Your task to perform on an android device: turn off sleep mode Image 0: 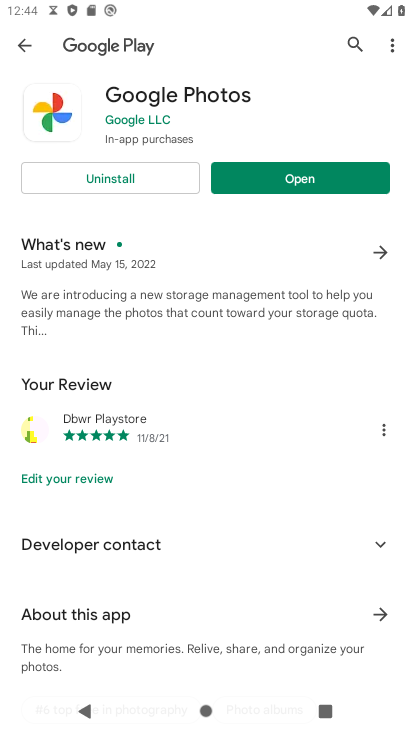
Step 0: press home button
Your task to perform on an android device: turn off sleep mode Image 1: 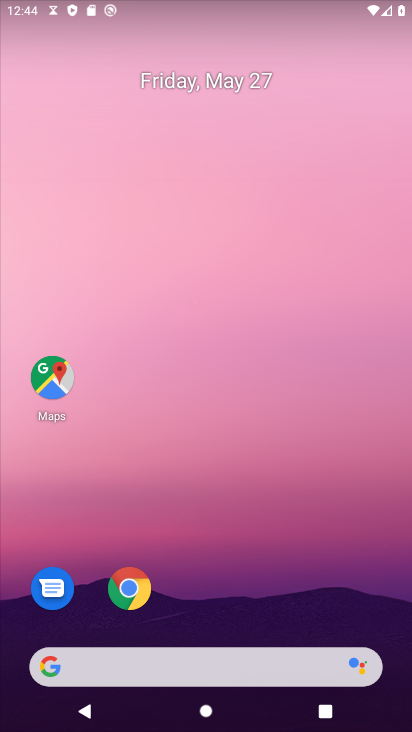
Step 1: drag from (225, 624) to (259, 132)
Your task to perform on an android device: turn off sleep mode Image 2: 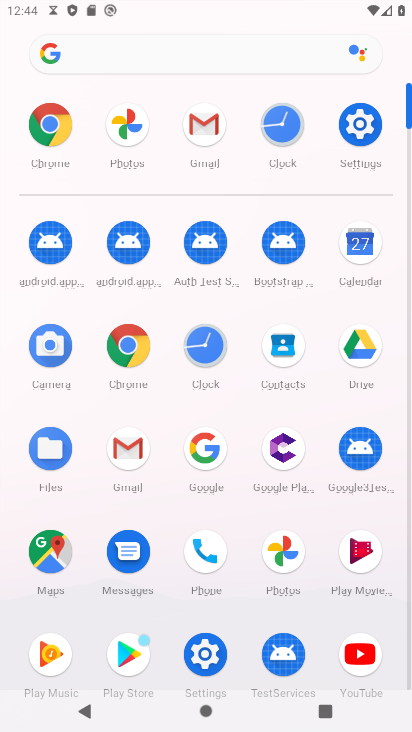
Step 2: click (362, 115)
Your task to perform on an android device: turn off sleep mode Image 3: 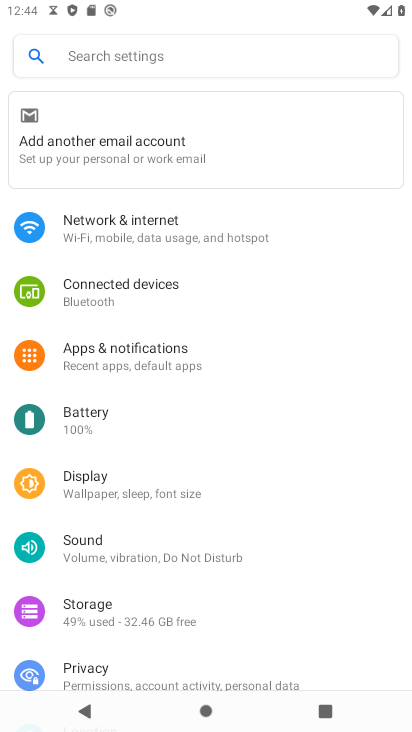
Step 3: click (118, 475)
Your task to perform on an android device: turn off sleep mode Image 4: 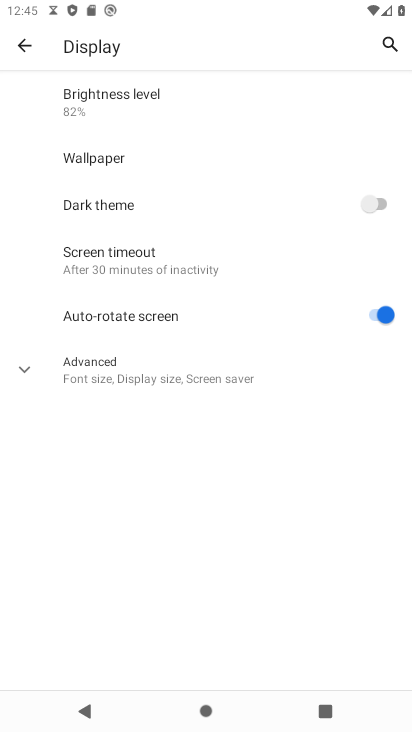
Step 4: click (28, 362)
Your task to perform on an android device: turn off sleep mode Image 5: 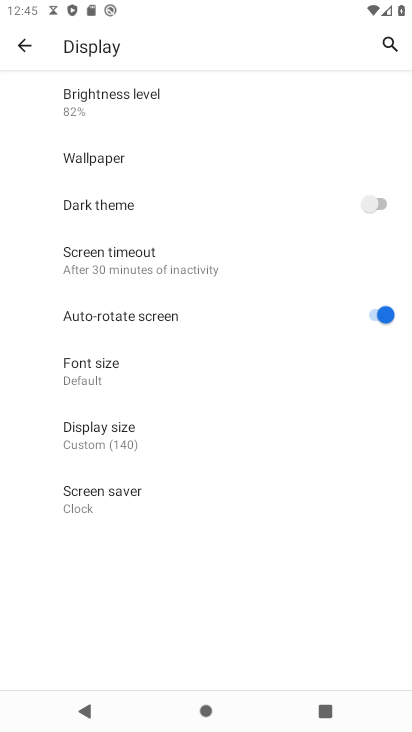
Step 5: task complete